Your task to perform on an android device: Open notification settings Image 0: 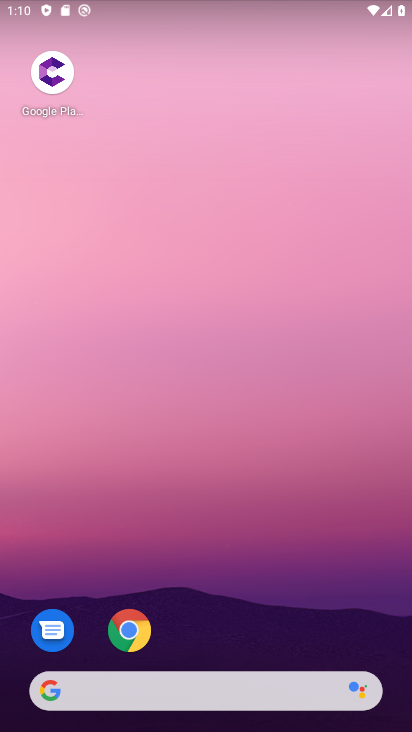
Step 0: drag from (197, 655) to (307, 115)
Your task to perform on an android device: Open notification settings Image 1: 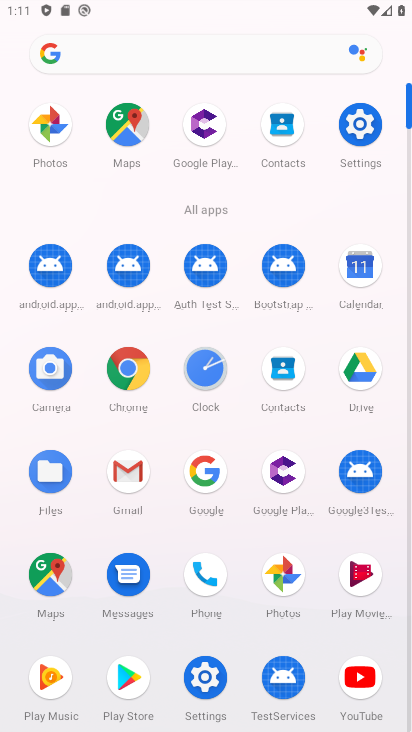
Step 1: click (208, 693)
Your task to perform on an android device: Open notification settings Image 2: 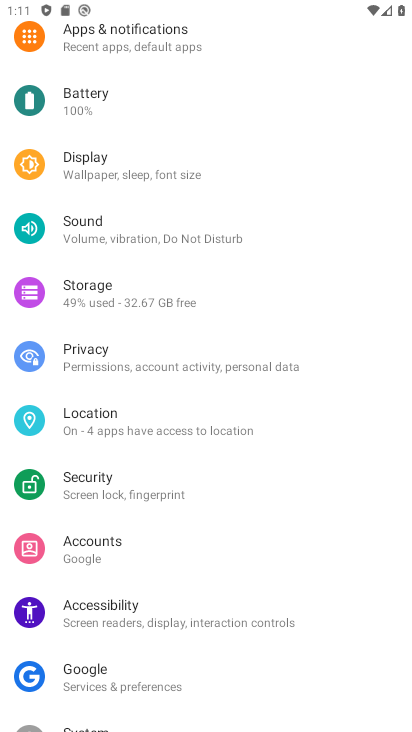
Step 2: click (201, 54)
Your task to perform on an android device: Open notification settings Image 3: 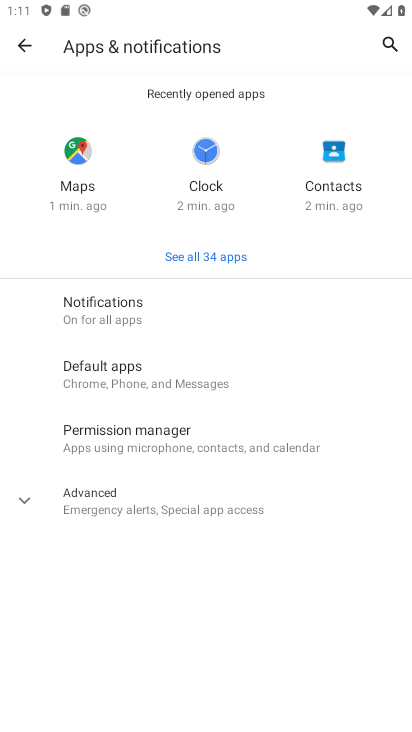
Step 3: click (174, 316)
Your task to perform on an android device: Open notification settings Image 4: 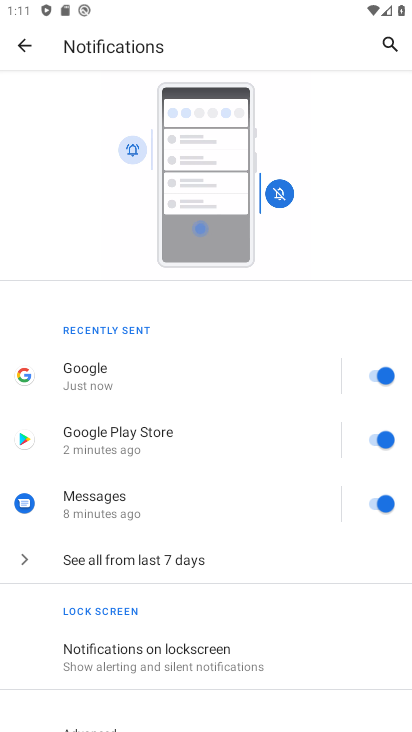
Step 4: task complete